Your task to perform on an android device: clear all cookies in the chrome app Image 0: 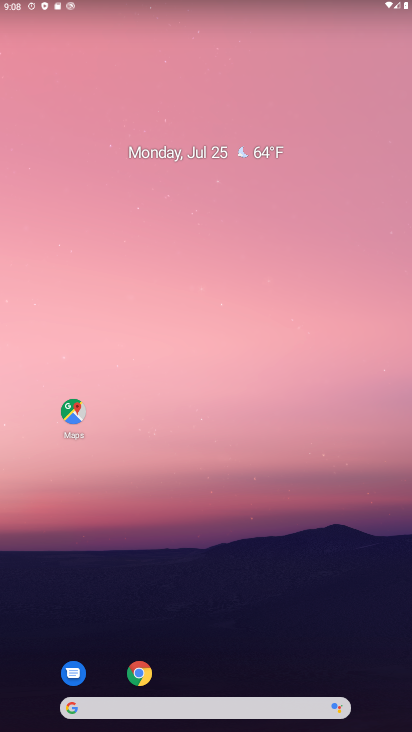
Step 0: press home button
Your task to perform on an android device: clear all cookies in the chrome app Image 1: 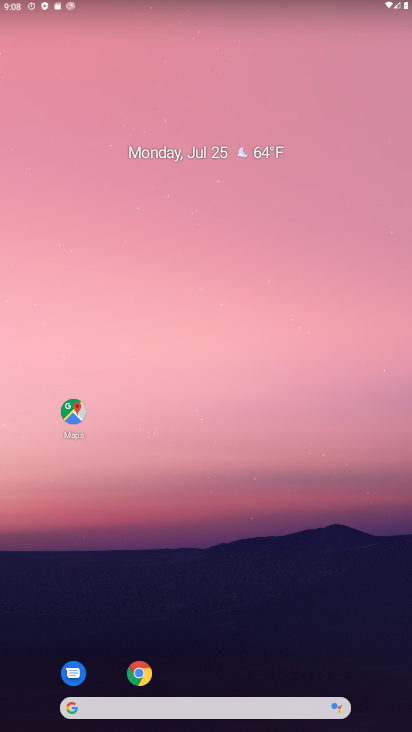
Step 1: drag from (218, 681) to (220, 3)
Your task to perform on an android device: clear all cookies in the chrome app Image 2: 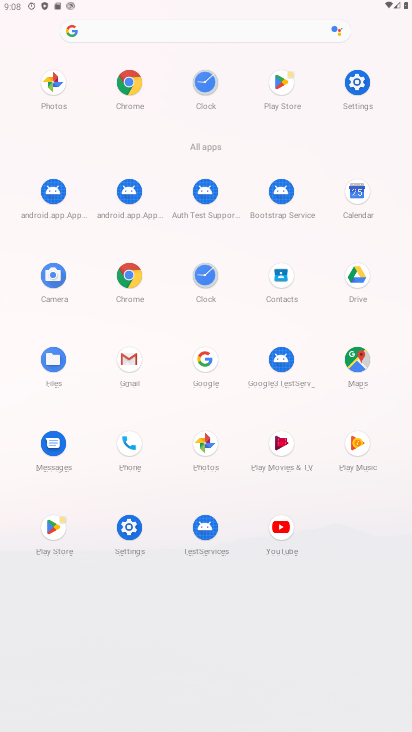
Step 2: click (125, 272)
Your task to perform on an android device: clear all cookies in the chrome app Image 3: 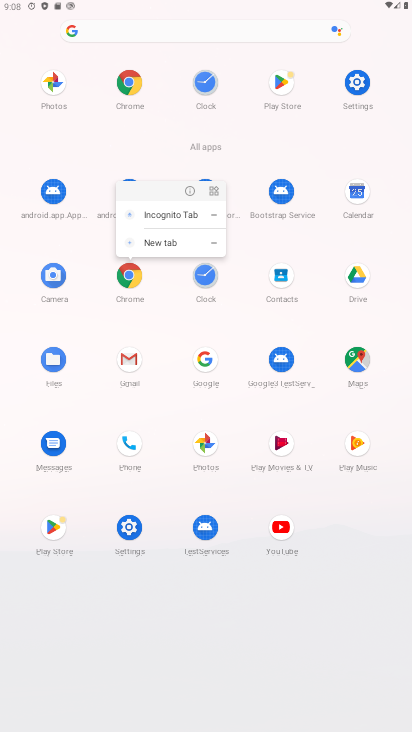
Step 3: click (133, 276)
Your task to perform on an android device: clear all cookies in the chrome app Image 4: 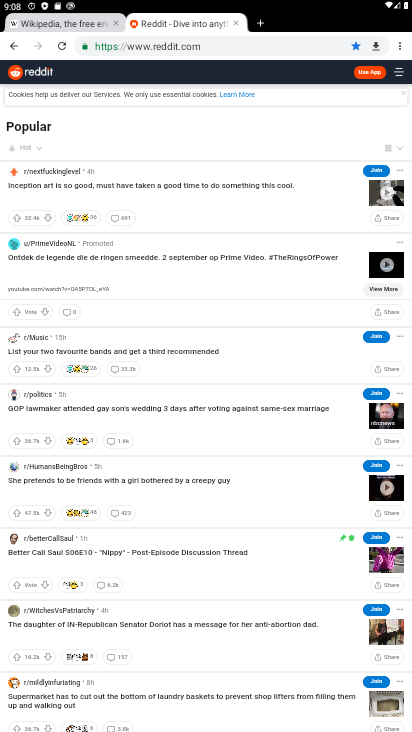
Step 4: click (401, 43)
Your task to perform on an android device: clear all cookies in the chrome app Image 5: 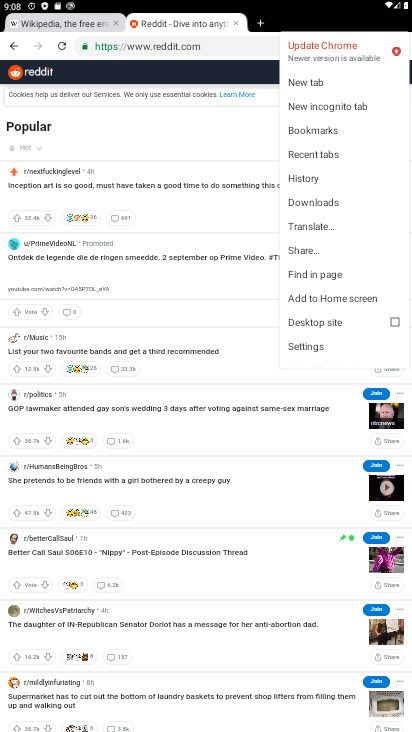
Step 5: click (324, 177)
Your task to perform on an android device: clear all cookies in the chrome app Image 6: 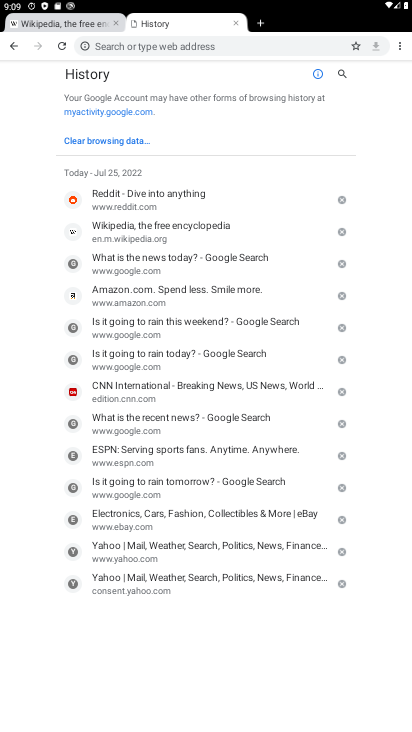
Step 6: click (126, 143)
Your task to perform on an android device: clear all cookies in the chrome app Image 7: 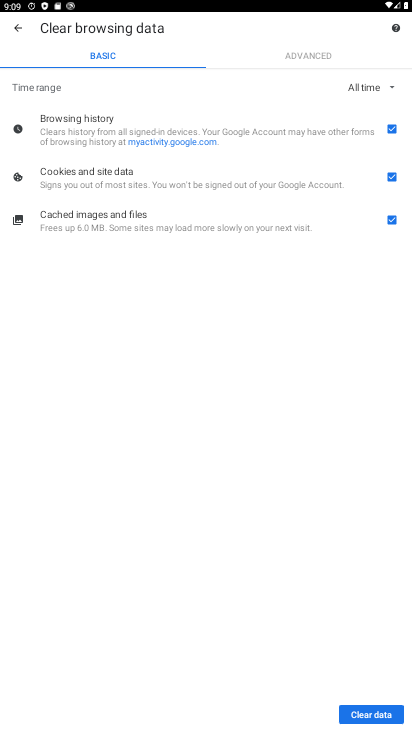
Step 7: click (389, 122)
Your task to perform on an android device: clear all cookies in the chrome app Image 8: 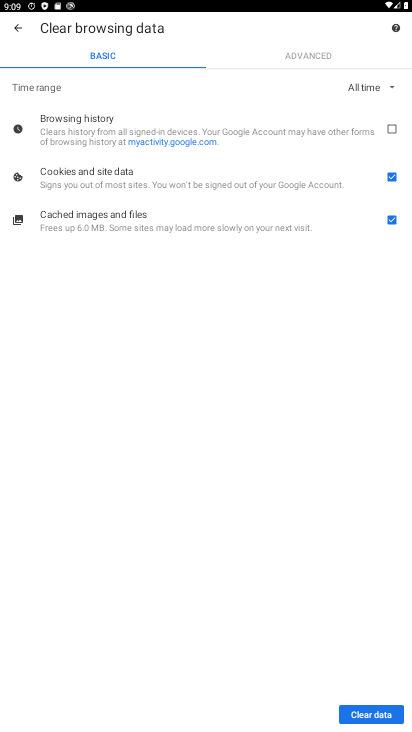
Step 8: click (386, 218)
Your task to perform on an android device: clear all cookies in the chrome app Image 9: 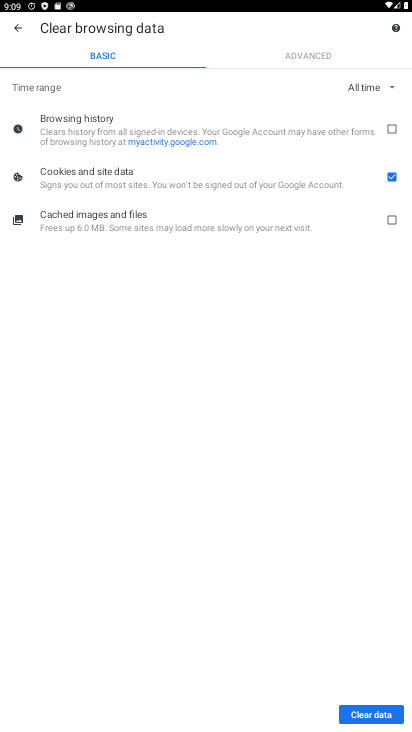
Step 9: click (372, 716)
Your task to perform on an android device: clear all cookies in the chrome app Image 10: 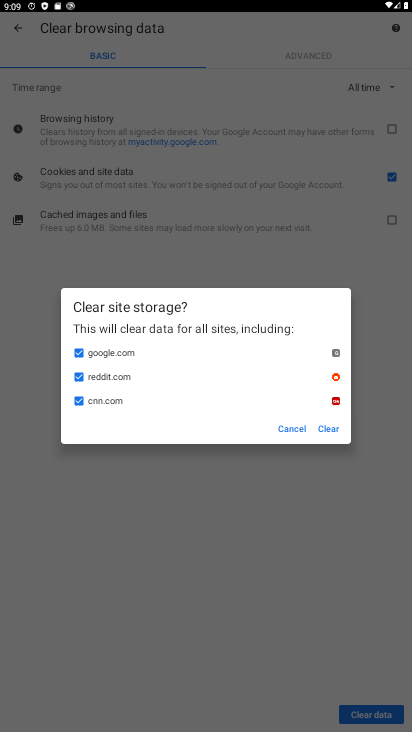
Step 10: click (330, 422)
Your task to perform on an android device: clear all cookies in the chrome app Image 11: 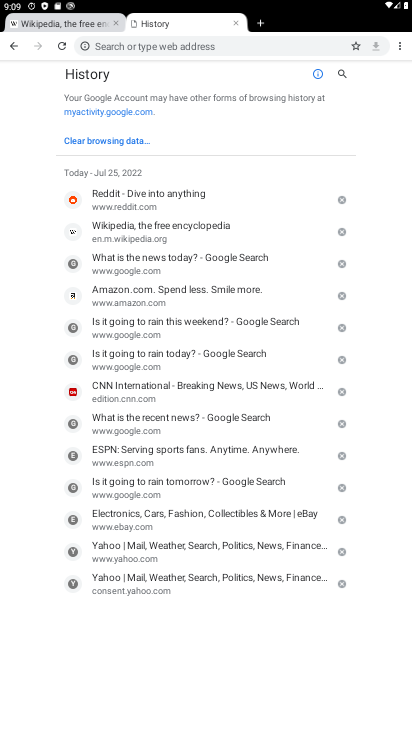
Step 11: task complete